Your task to perform on an android device: toggle improve location accuracy Image 0: 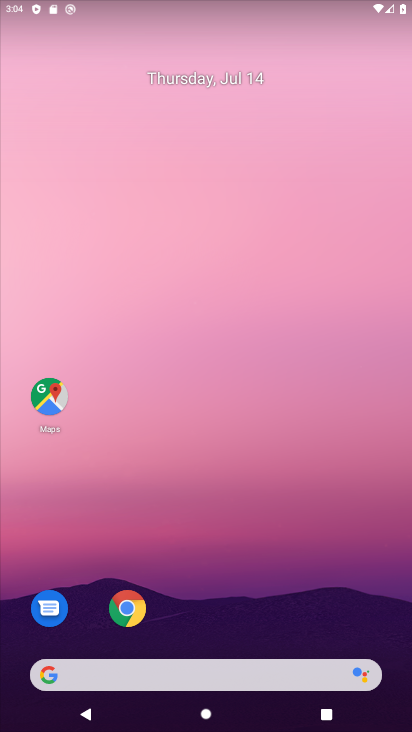
Step 0: drag from (212, 644) to (159, 183)
Your task to perform on an android device: toggle improve location accuracy Image 1: 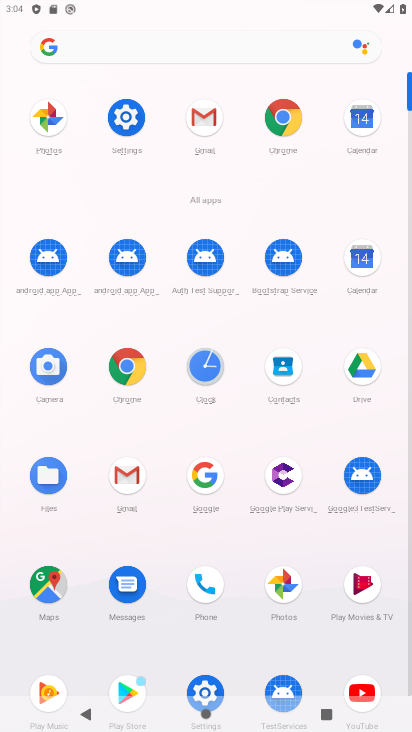
Step 1: click (115, 122)
Your task to perform on an android device: toggle improve location accuracy Image 2: 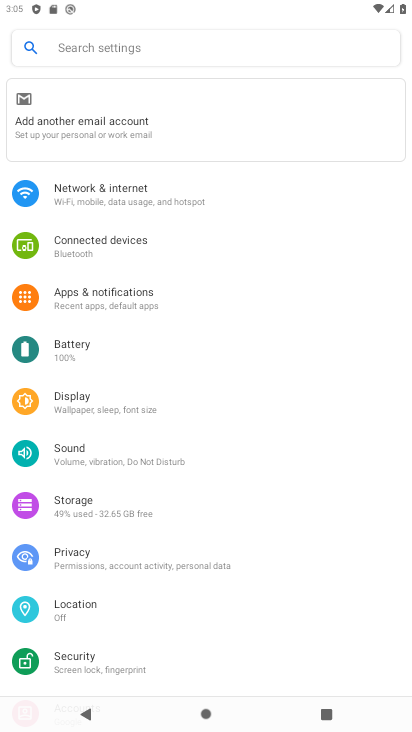
Step 2: click (68, 607)
Your task to perform on an android device: toggle improve location accuracy Image 3: 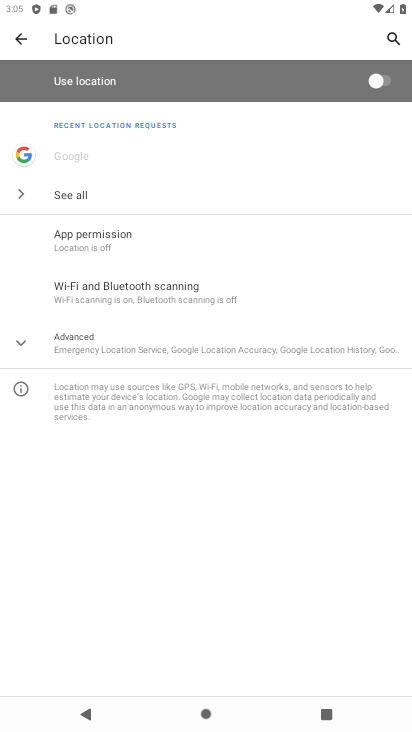
Step 3: click (82, 338)
Your task to perform on an android device: toggle improve location accuracy Image 4: 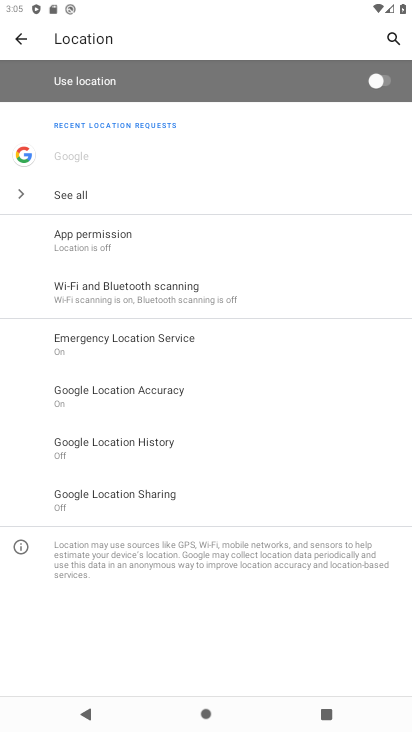
Step 4: click (153, 373)
Your task to perform on an android device: toggle improve location accuracy Image 5: 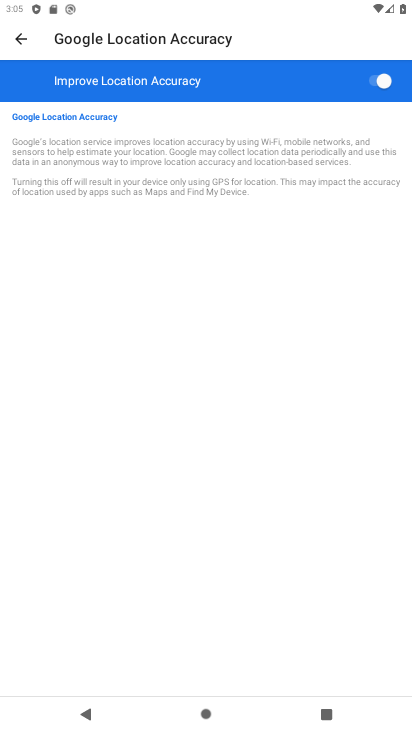
Step 5: click (374, 80)
Your task to perform on an android device: toggle improve location accuracy Image 6: 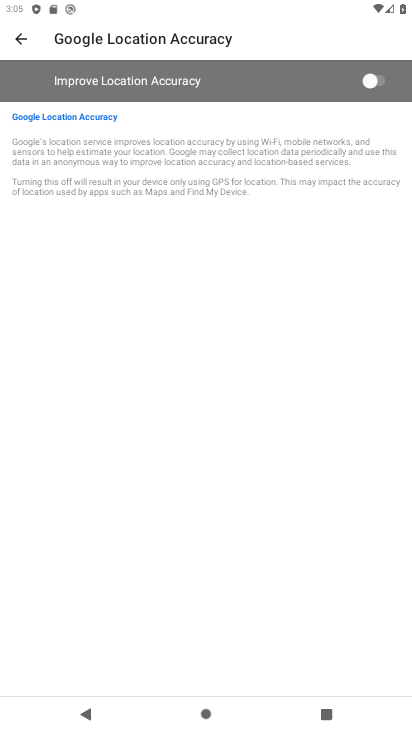
Step 6: task complete